Your task to perform on an android device: Open eBay Image 0: 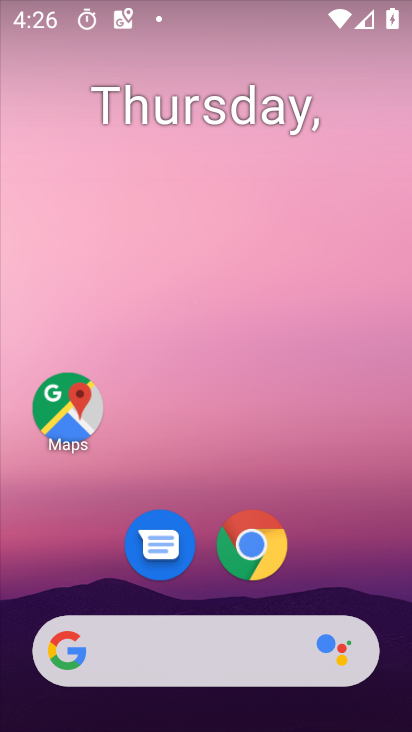
Step 0: drag from (183, 724) to (193, 147)
Your task to perform on an android device: Open eBay Image 1: 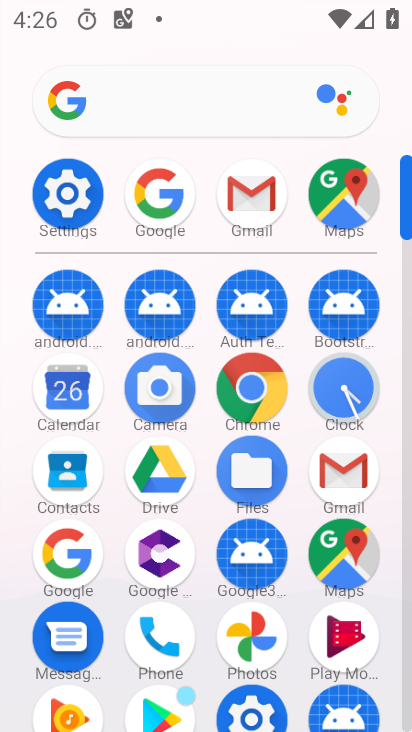
Step 1: click (241, 384)
Your task to perform on an android device: Open eBay Image 2: 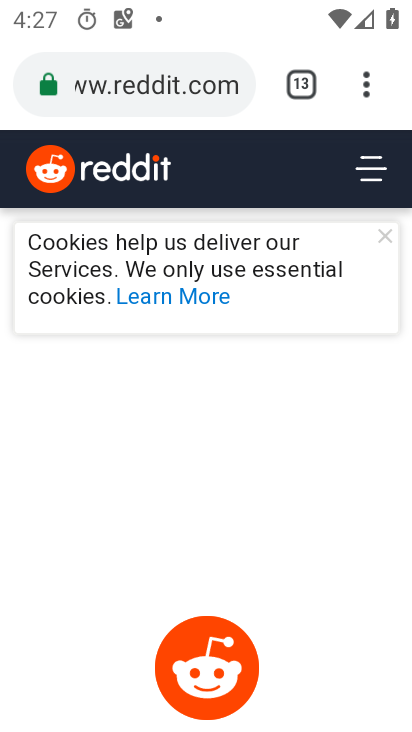
Step 2: click (368, 94)
Your task to perform on an android device: Open eBay Image 3: 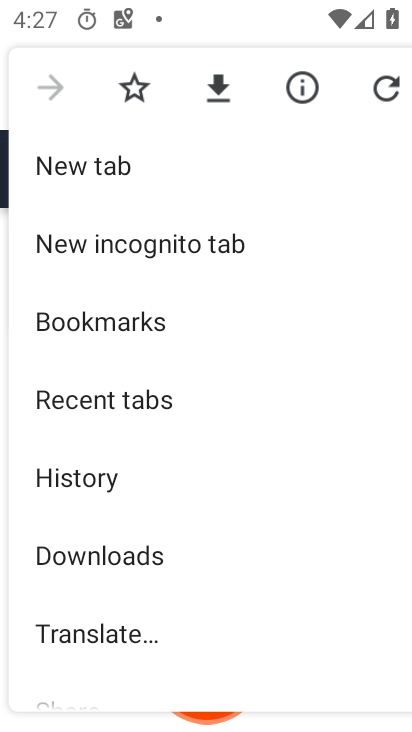
Step 3: click (93, 162)
Your task to perform on an android device: Open eBay Image 4: 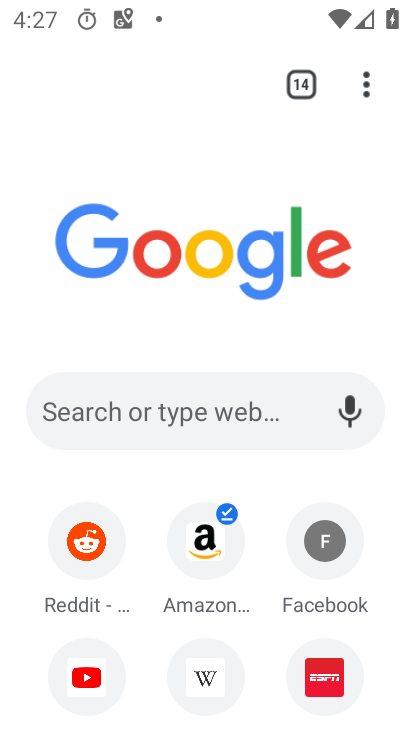
Step 4: type "eBay"
Your task to perform on an android device: Open eBay Image 5: 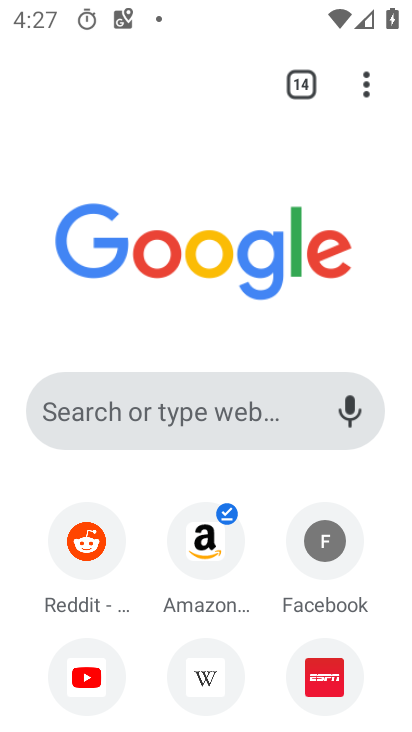
Step 5: click (156, 413)
Your task to perform on an android device: Open eBay Image 6: 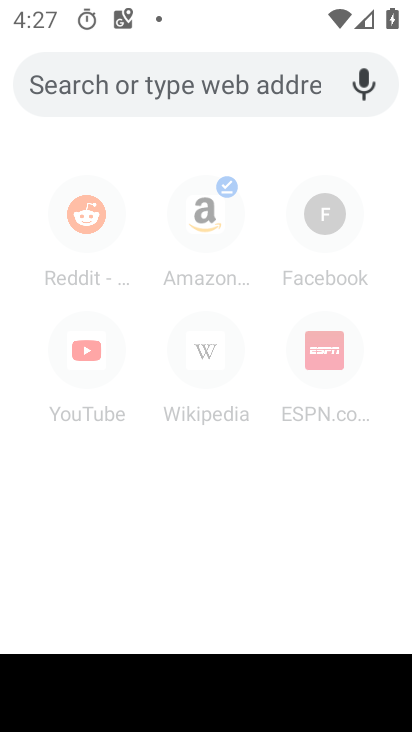
Step 6: type "eBay"
Your task to perform on an android device: Open eBay Image 7: 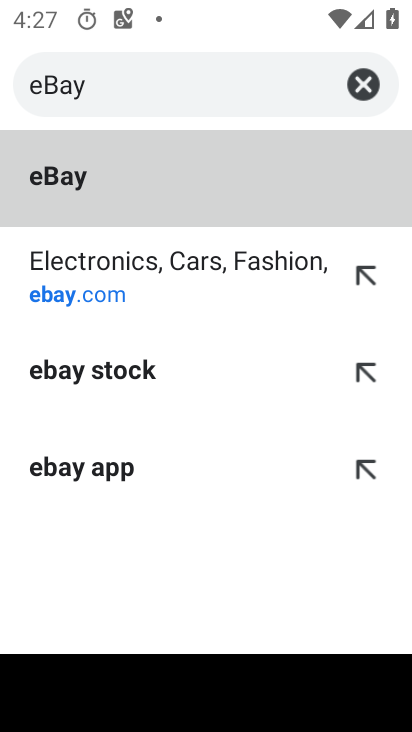
Step 7: click (69, 170)
Your task to perform on an android device: Open eBay Image 8: 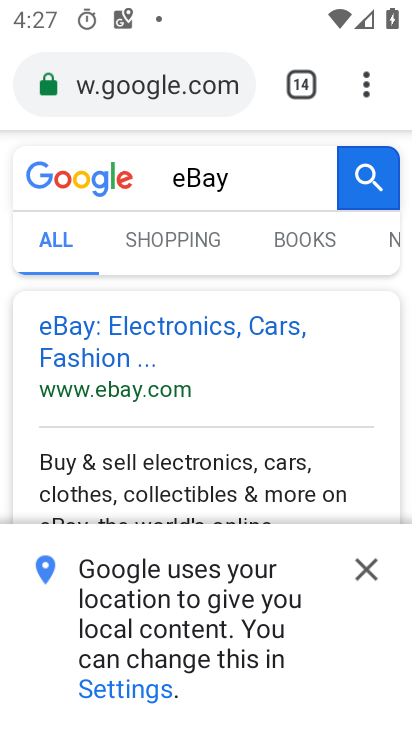
Step 8: click (96, 336)
Your task to perform on an android device: Open eBay Image 9: 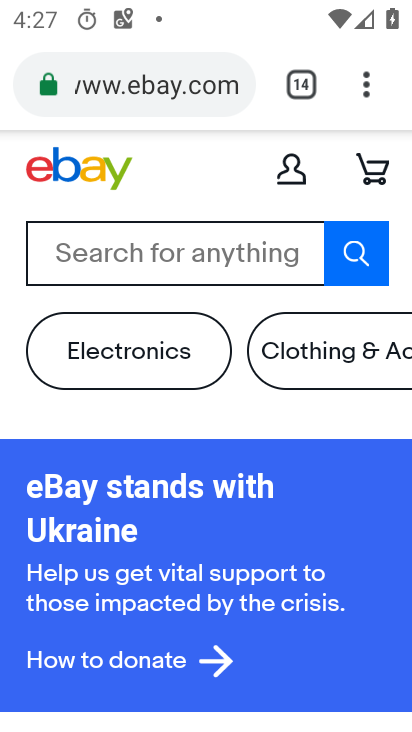
Step 9: task complete